Your task to perform on an android device: What's the weather? Image 0: 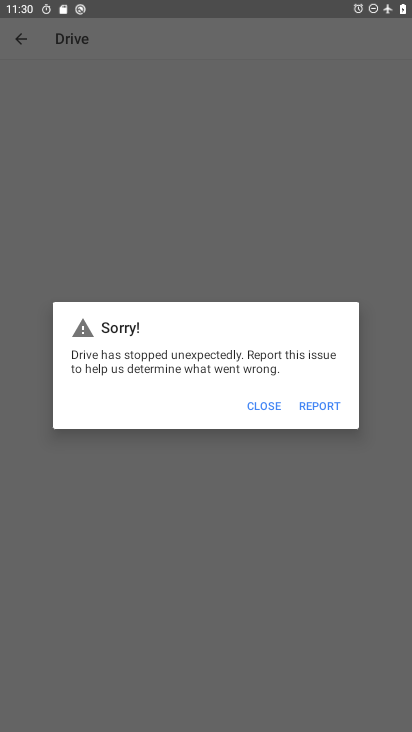
Step 0: press home button
Your task to perform on an android device: What's the weather? Image 1: 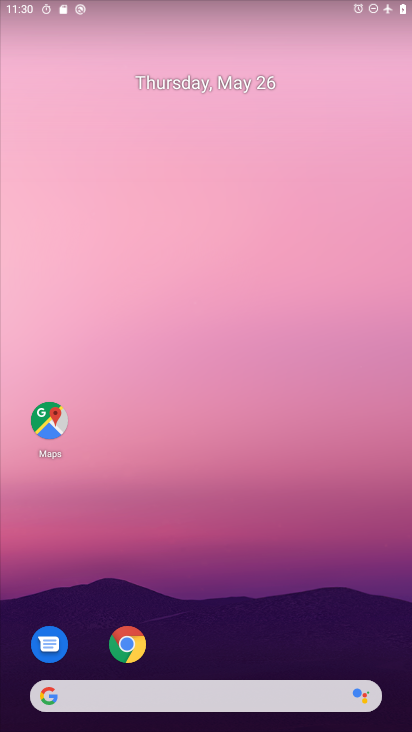
Step 1: click (254, 692)
Your task to perform on an android device: What's the weather? Image 2: 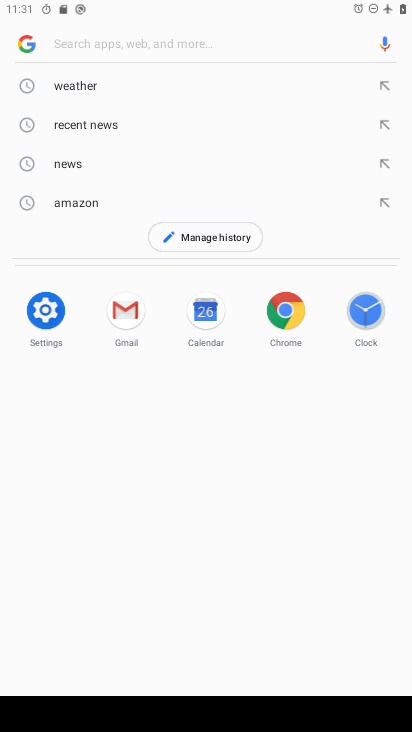
Step 2: click (84, 93)
Your task to perform on an android device: What's the weather? Image 3: 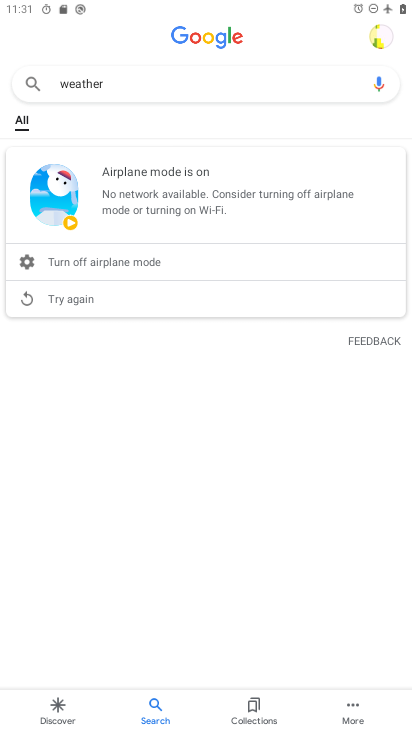
Step 3: task complete